Your task to perform on an android device: Open internet settings Image 0: 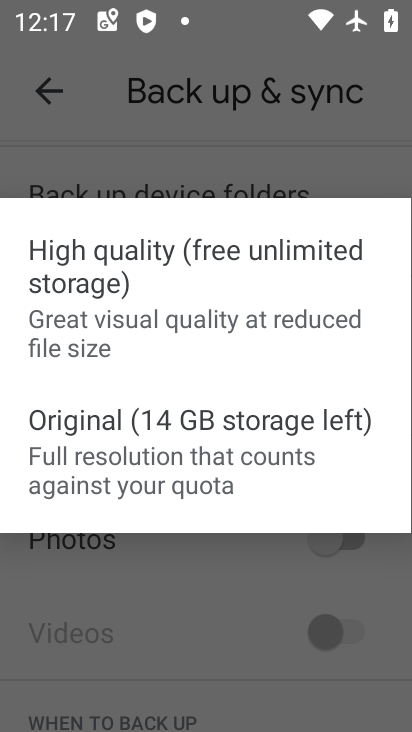
Step 0: press home button
Your task to perform on an android device: Open internet settings Image 1: 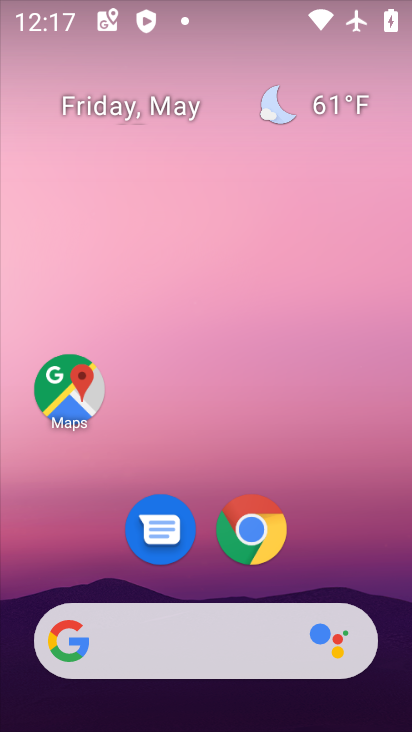
Step 1: click (356, 525)
Your task to perform on an android device: Open internet settings Image 2: 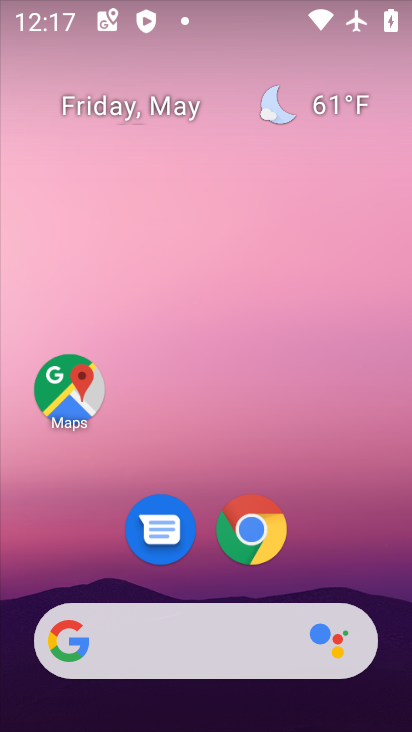
Step 2: drag from (356, 525) to (314, 67)
Your task to perform on an android device: Open internet settings Image 3: 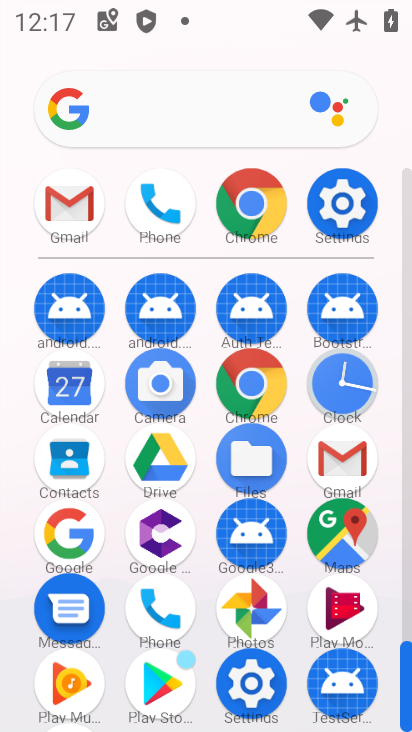
Step 3: click (318, 205)
Your task to perform on an android device: Open internet settings Image 4: 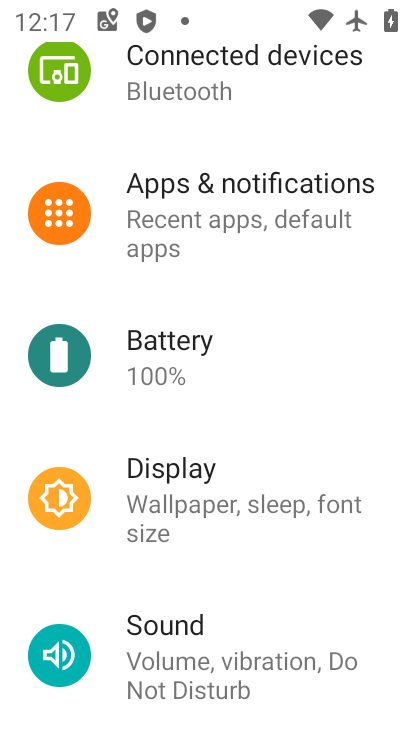
Step 4: drag from (238, 176) to (246, 669)
Your task to perform on an android device: Open internet settings Image 5: 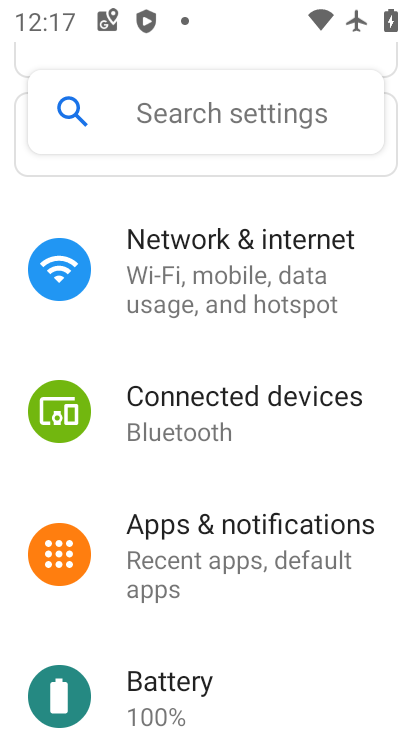
Step 5: click (258, 307)
Your task to perform on an android device: Open internet settings Image 6: 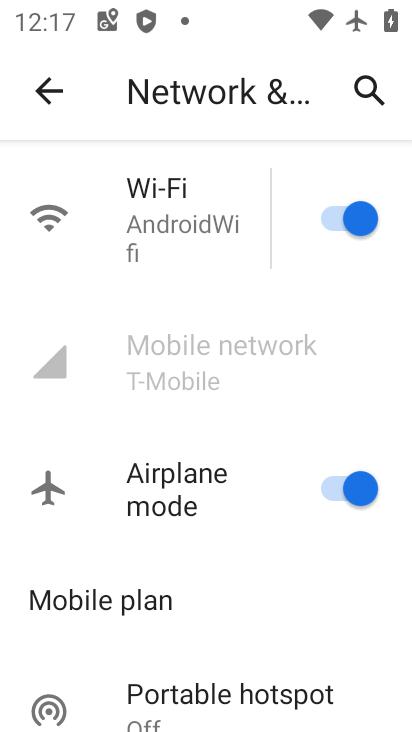
Step 6: task complete